Your task to perform on an android device: turn pop-ups off in chrome Image 0: 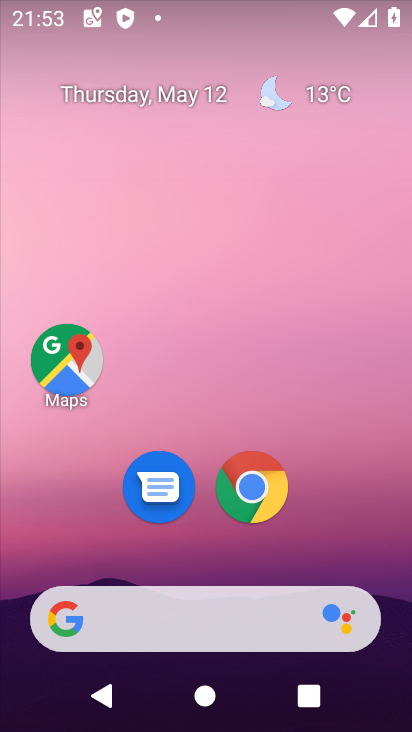
Step 0: click (244, 471)
Your task to perform on an android device: turn pop-ups off in chrome Image 1: 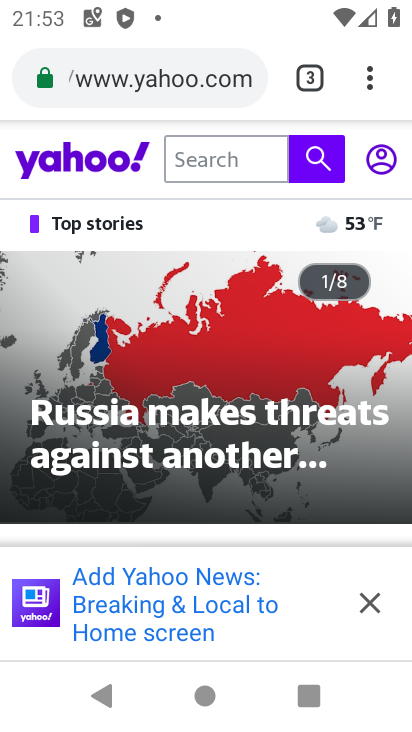
Step 1: click (384, 87)
Your task to perform on an android device: turn pop-ups off in chrome Image 2: 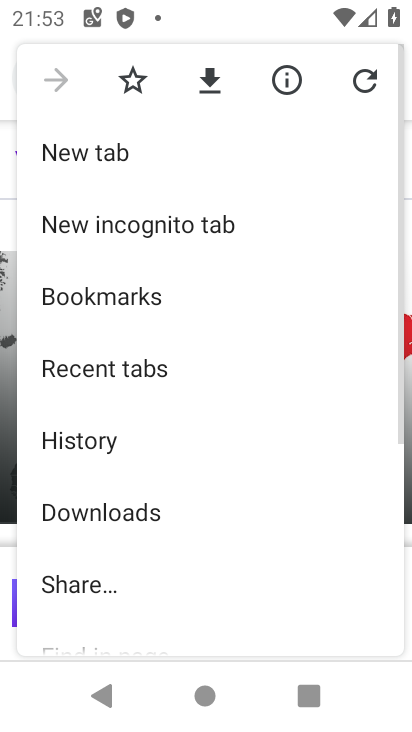
Step 2: drag from (144, 579) to (199, 232)
Your task to perform on an android device: turn pop-ups off in chrome Image 3: 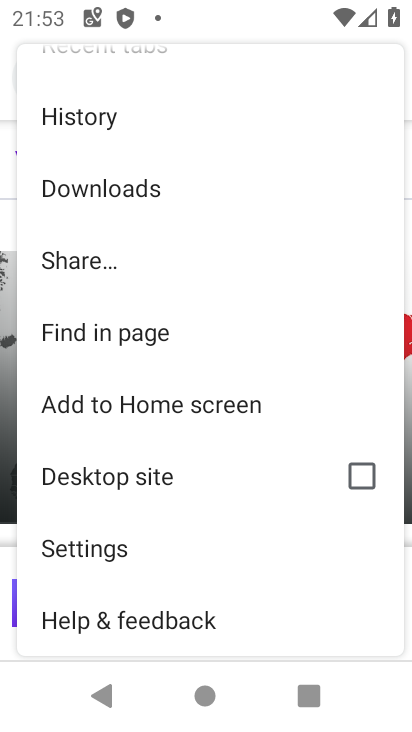
Step 3: click (114, 547)
Your task to perform on an android device: turn pop-ups off in chrome Image 4: 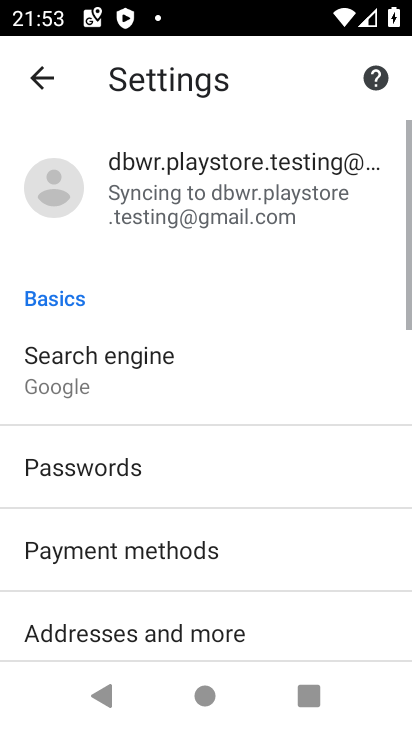
Step 4: drag from (114, 547) to (143, 224)
Your task to perform on an android device: turn pop-ups off in chrome Image 5: 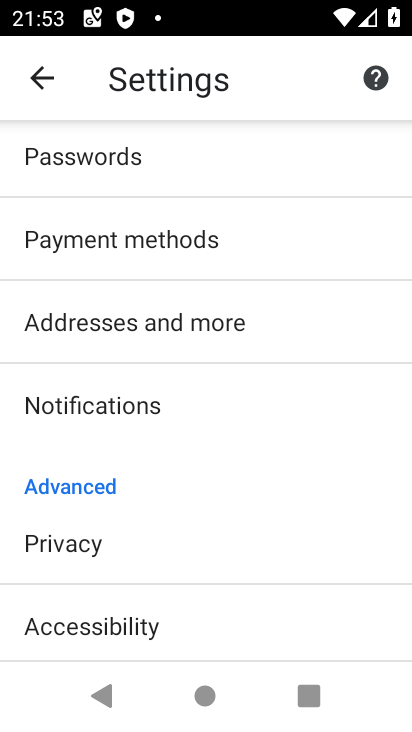
Step 5: drag from (149, 547) to (169, 269)
Your task to perform on an android device: turn pop-ups off in chrome Image 6: 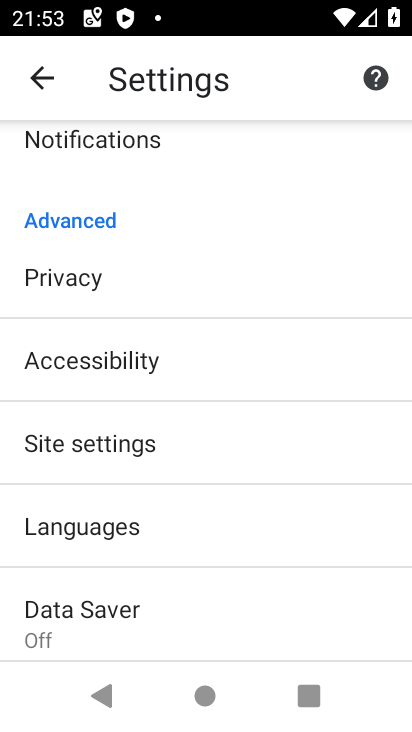
Step 6: click (147, 432)
Your task to perform on an android device: turn pop-ups off in chrome Image 7: 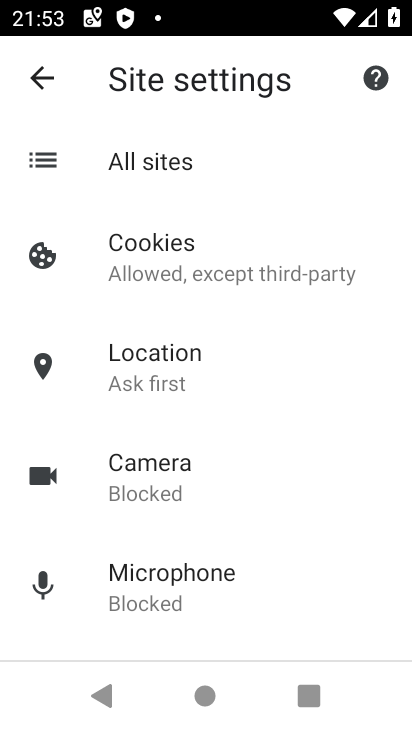
Step 7: drag from (166, 580) to (238, 286)
Your task to perform on an android device: turn pop-ups off in chrome Image 8: 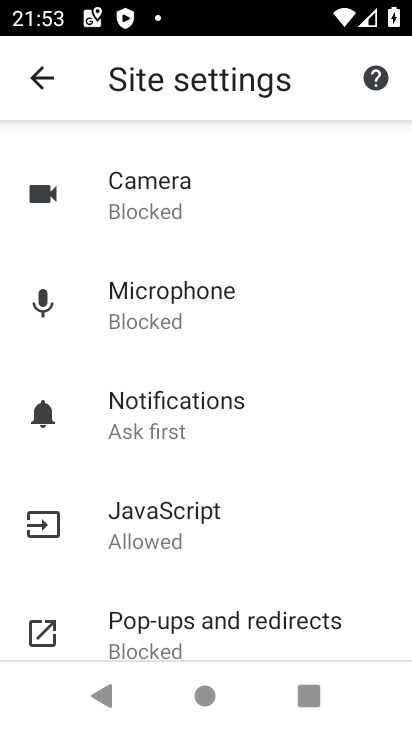
Step 8: click (182, 654)
Your task to perform on an android device: turn pop-ups off in chrome Image 9: 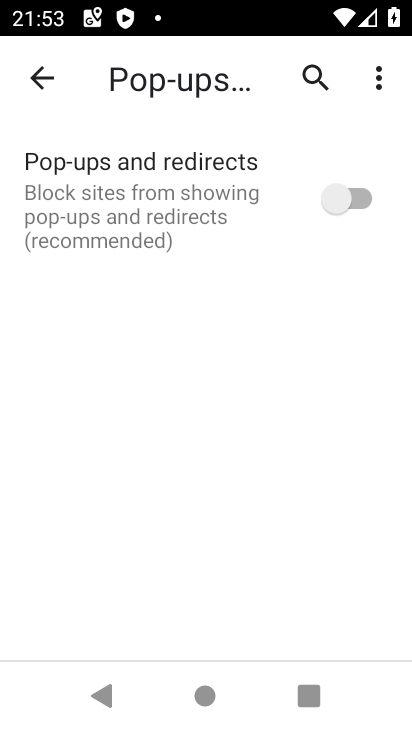
Step 9: task complete